Your task to perform on an android device: change the clock style Image 0: 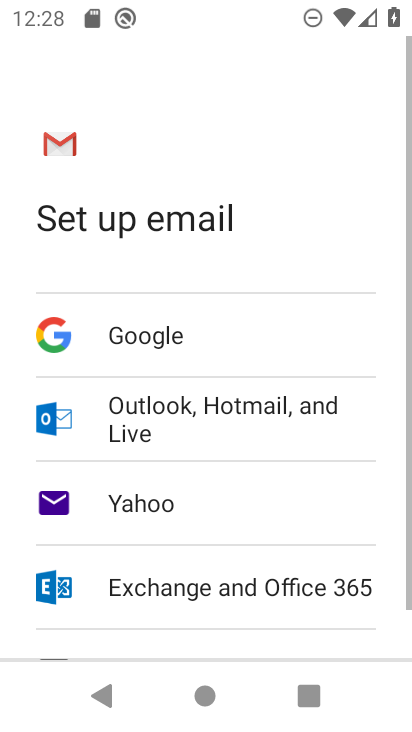
Step 0: press home button
Your task to perform on an android device: change the clock style Image 1: 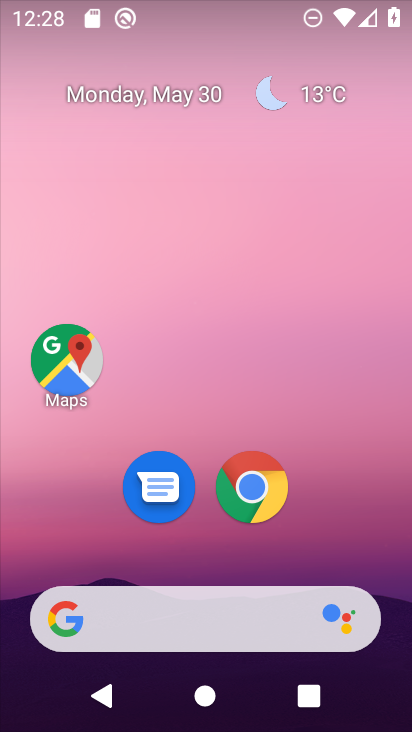
Step 1: drag from (394, 627) to (407, 216)
Your task to perform on an android device: change the clock style Image 2: 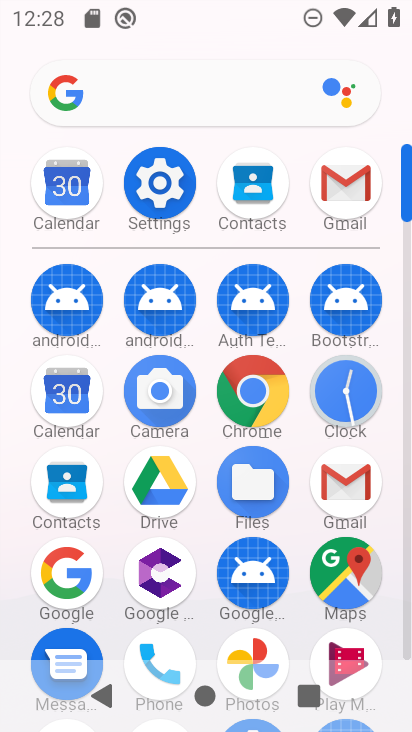
Step 2: click (356, 383)
Your task to perform on an android device: change the clock style Image 3: 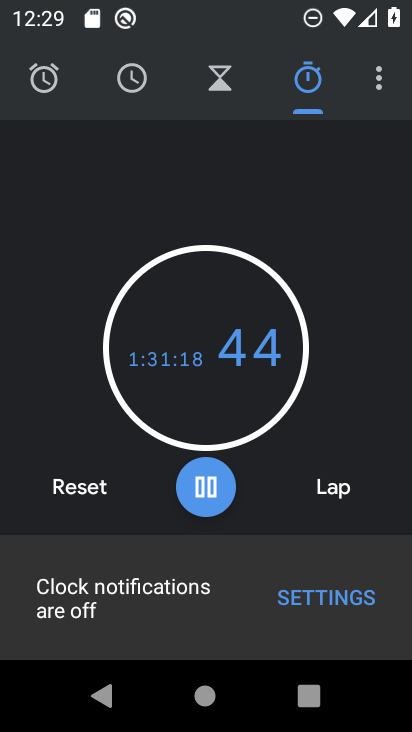
Step 3: click (377, 79)
Your task to perform on an android device: change the clock style Image 4: 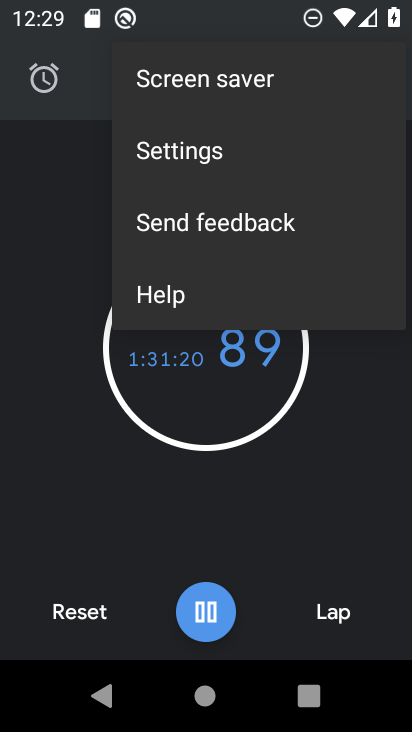
Step 4: click (196, 152)
Your task to perform on an android device: change the clock style Image 5: 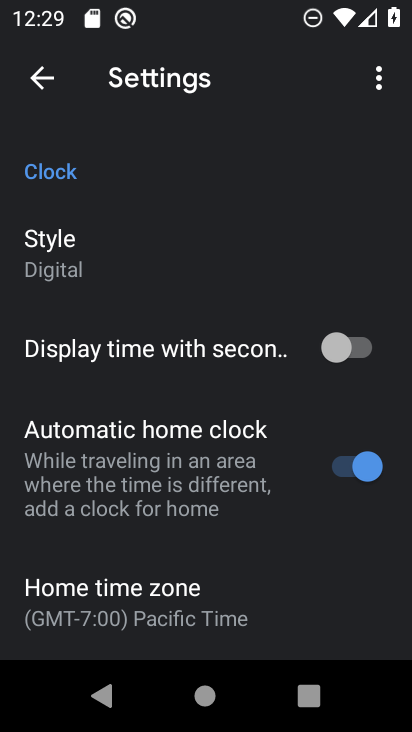
Step 5: click (43, 248)
Your task to perform on an android device: change the clock style Image 6: 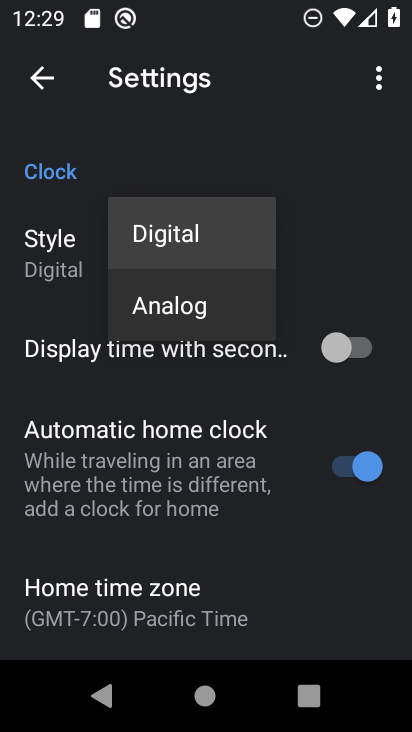
Step 6: click (185, 315)
Your task to perform on an android device: change the clock style Image 7: 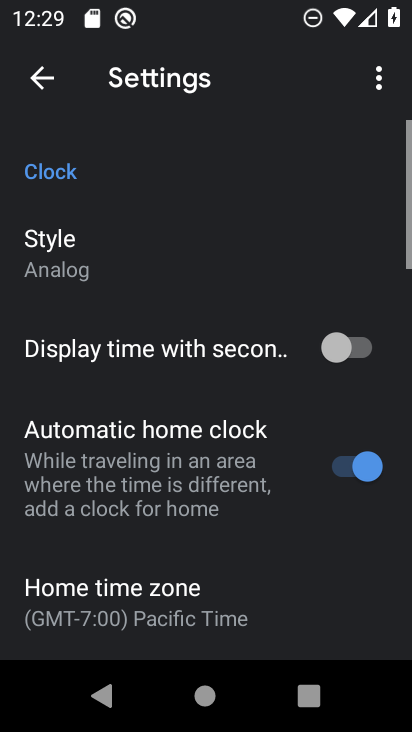
Step 7: task complete